Your task to perform on an android device: visit the assistant section in the google photos Image 0: 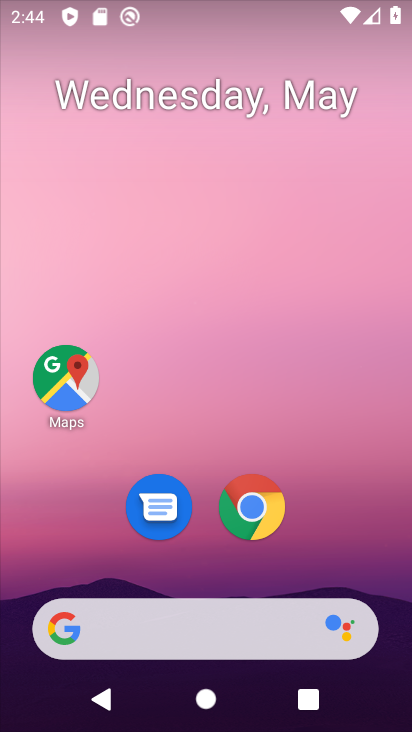
Step 0: drag from (373, 525) to (313, 10)
Your task to perform on an android device: visit the assistant section in the google photos Image 1: 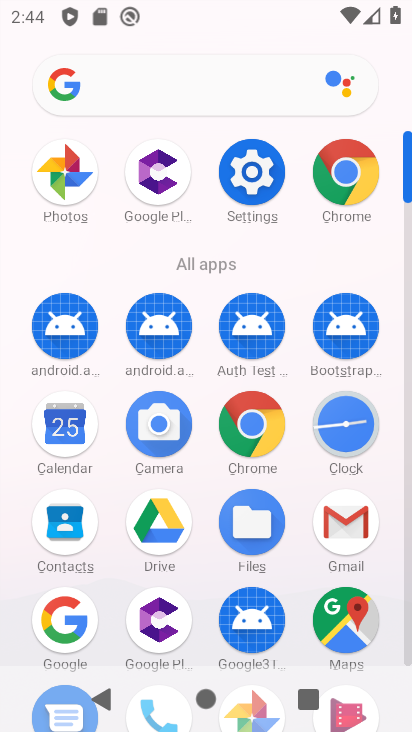
Step 1: drag from (21, 448) to (25, 177)
Your task to perform on an android device: visit the assistant section in the google photos Image 2: 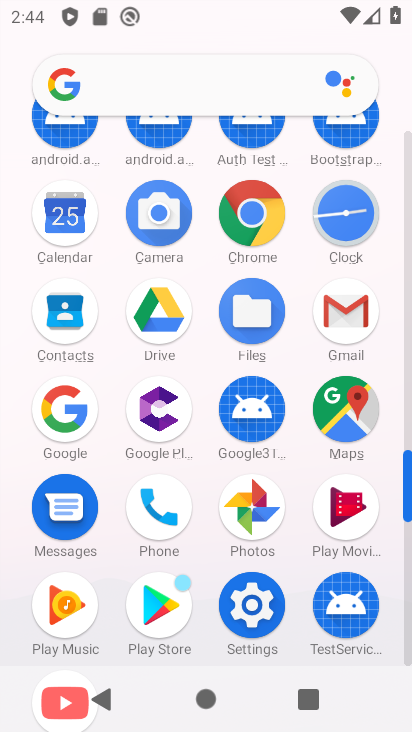
Step 2: click (258, 506)
Your task to perform on an android device: visit the assistant section in the google photos Image 3: 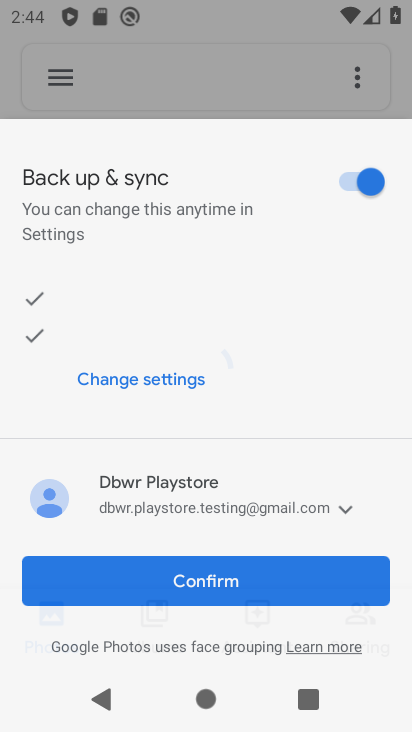
Step 3: click (53, 88)
Your task to perform on an android device: visit the assistant section in the google photos Image 4: 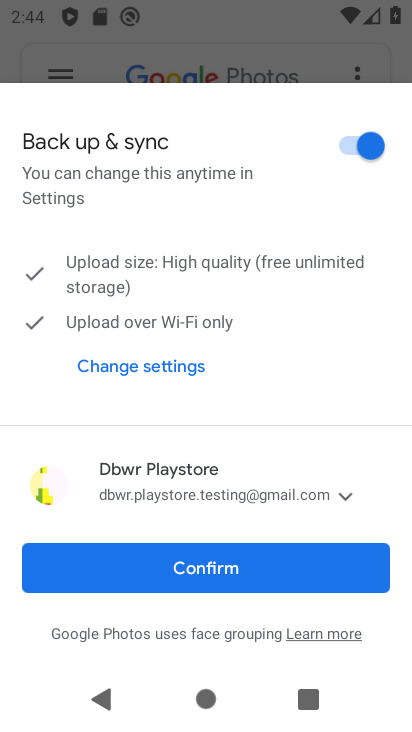
Step 4: click (190, 574)
Your task to perform on an android device: visit the assistant section in the google photos Image 5: 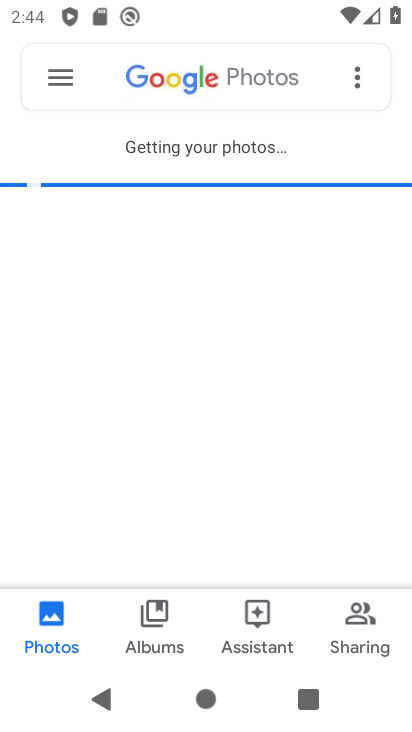
Step 5: click (257, 621)
Your task to perform on an android device: visit the assistant section in the google photos Image 6: 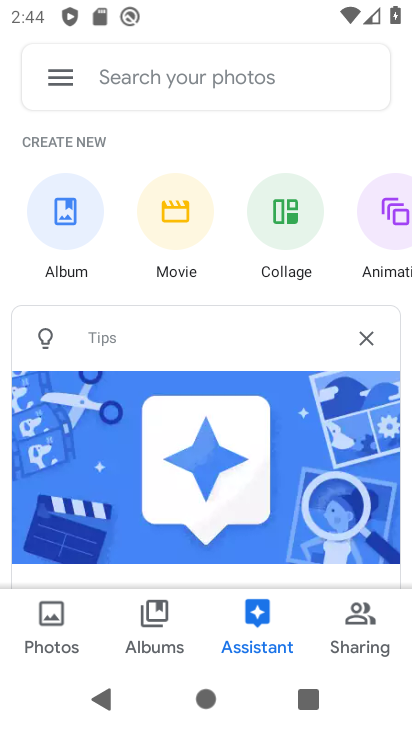
Step 6: task complete